Your task to perform on an android device: turn on data saver in the chrome app Image 0: 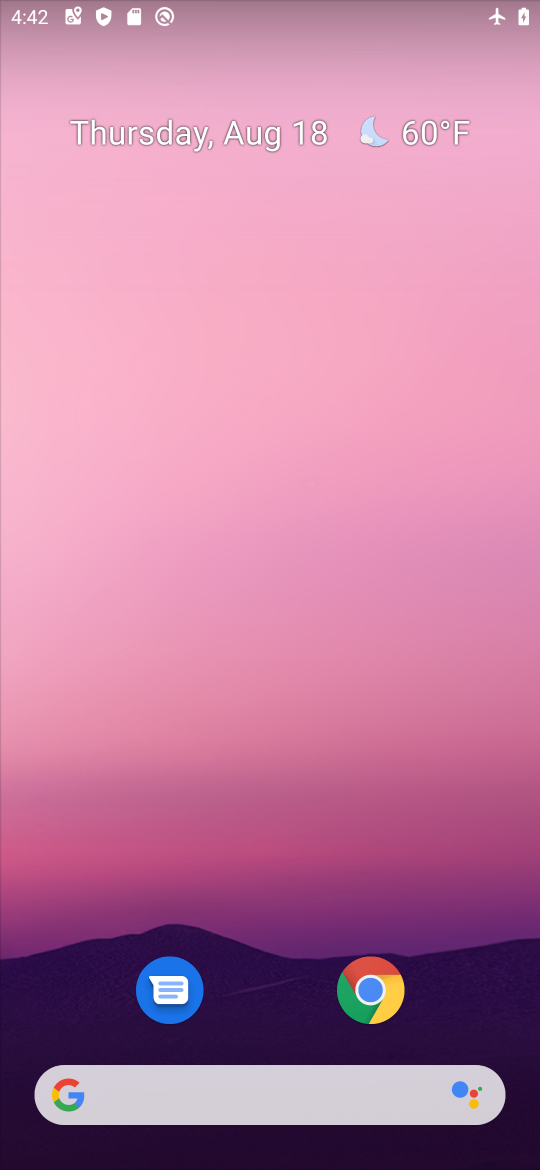
Step 0: drag from (330, 853) to (337, 4)
Your task to perform on an android device: turn on data saver in the chrome app Image 1: 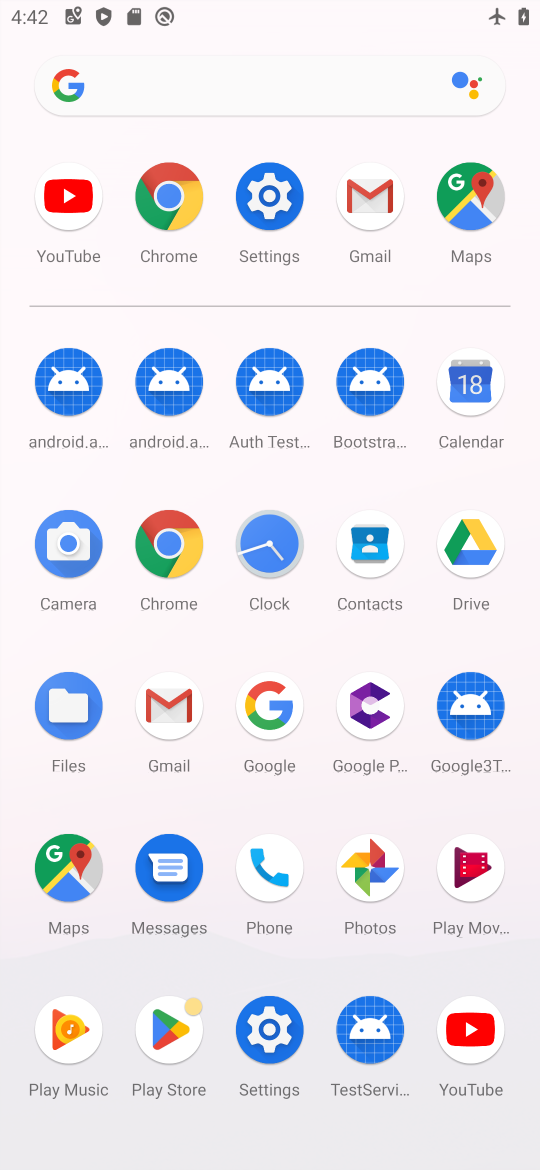
Step 1: click (168, 538)
Your task to perform on an android device: turn on data saver in the chrome app Image 2: 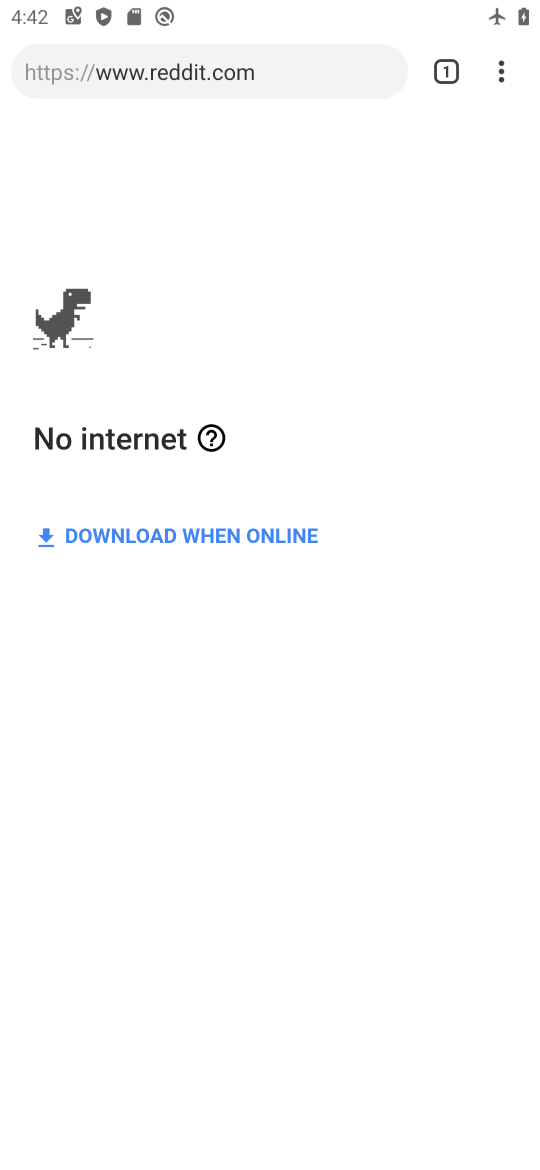
Step 2: drag from (504, 72) to (258, 803)
Your task to perform on an android device: turn on data saver in the chrome app Image 3: 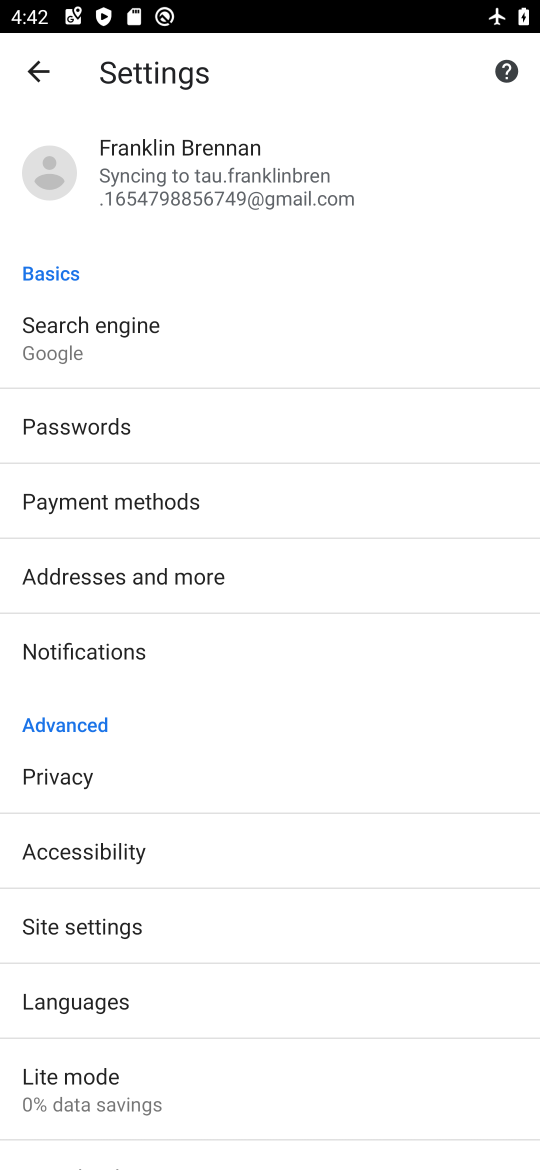
Step 3: click (138, 1103)
Your task to perform on an android device: turn on data saver in the chrome app Image 4: 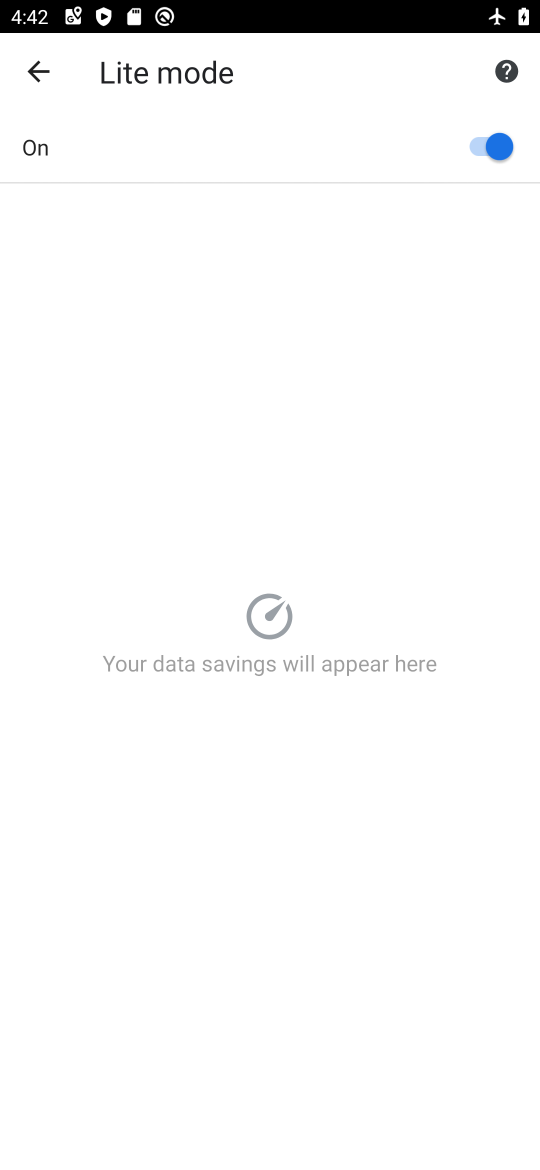
Step 4: task complete